Your task to perform on an android device: See recent photos Image 0: 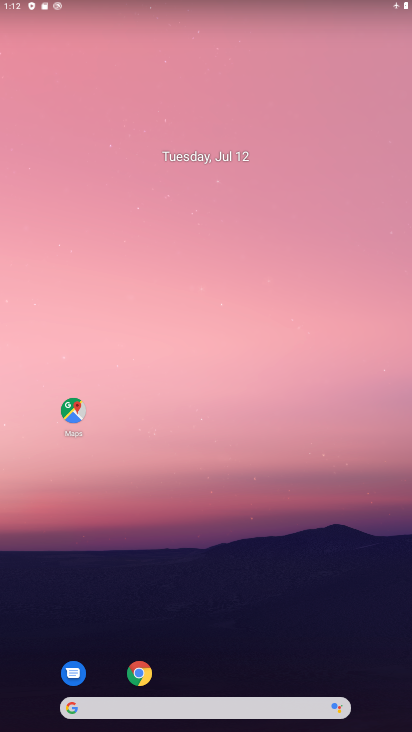
Step 0: drag from (265, 651) to (219, 283)
Your task to perform on an android device: See recent photos Image 1: 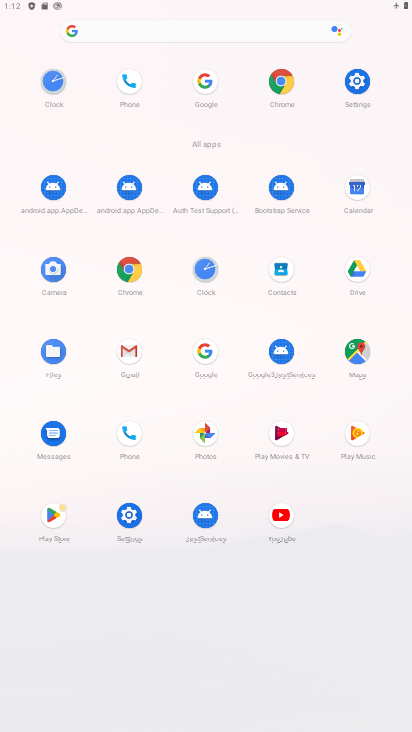
Step 1: click (194, 427)
Your task to perform on an android device: See recent photos Image 2: 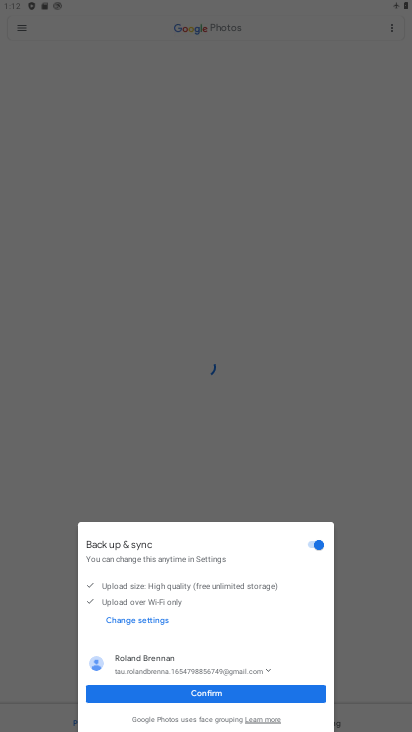
Step 2: click (322, 406)
Your task to perform on an android device: See recent photos Image 3: 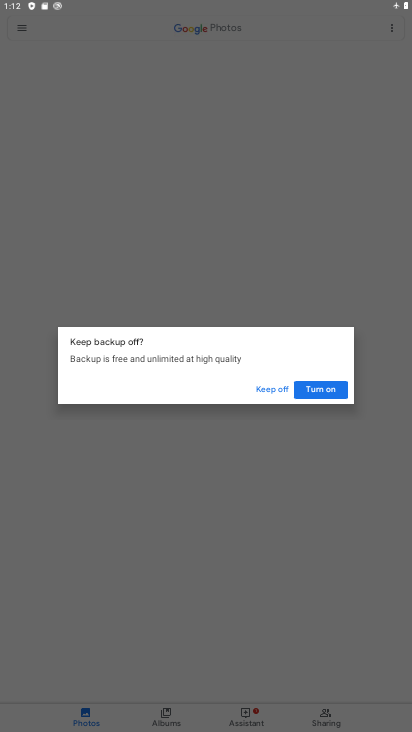
Step 3: click (321, 383)
Your task to perform on an android device: See recent photos Image 4: 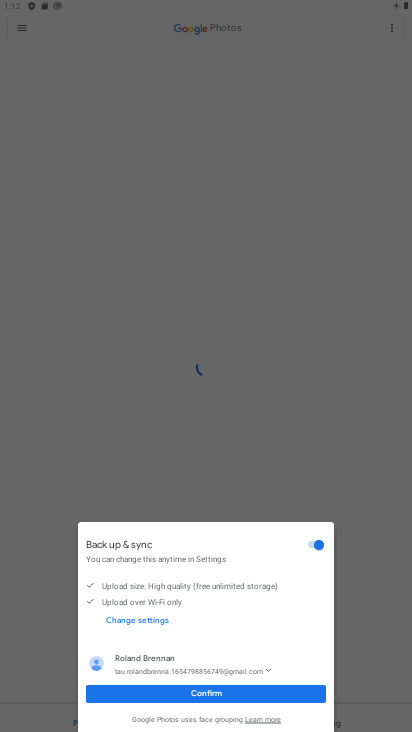
Step 4: click (226, 698)
Your task to perform on an android device: See recent photos Image 5: 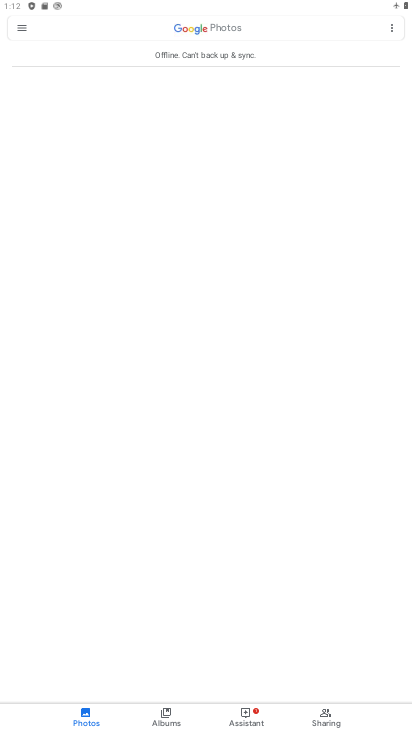
Step 5: click (164, 702)
Your task to perform on an android device: See recent photos Image 6: 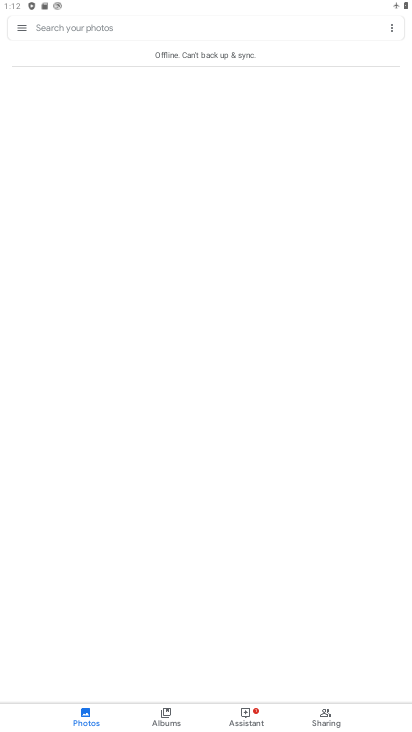
Step 6: task complete